Your task to perform on an android device: Open Chrome and go to settings Image 0: 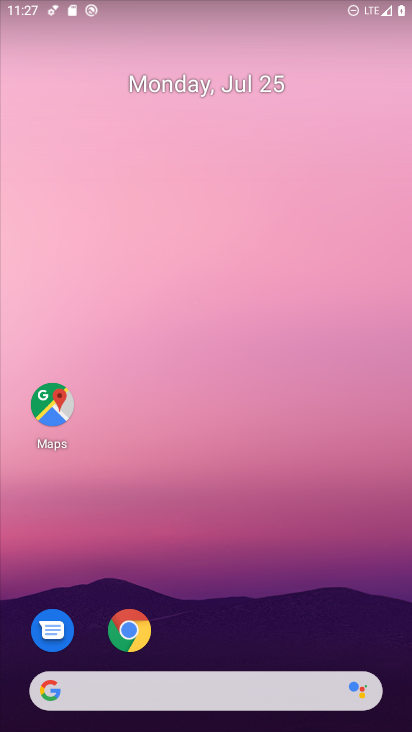
Step 0: click (132, 630)
Your task to perform on an android device: Open Chrome and go to settings Image 1: 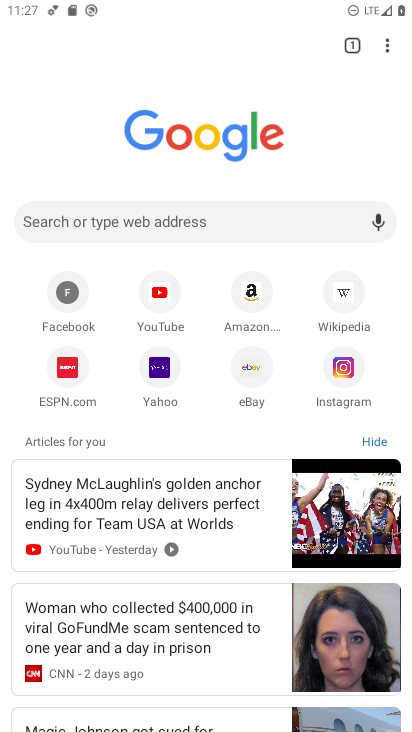
Step 1: click (390, 52)
Your task to perform on an android device: Open Chrome and go to settings Image 2: 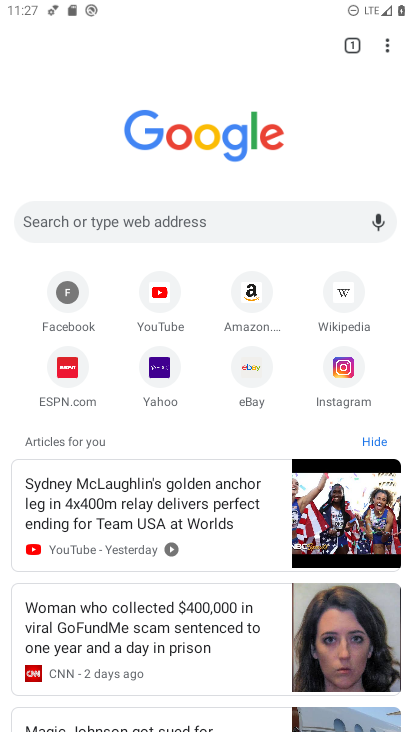
Step 2: click (390, 52)
Your task to perform on an android device: Open Chrome and go to settings Image 3: 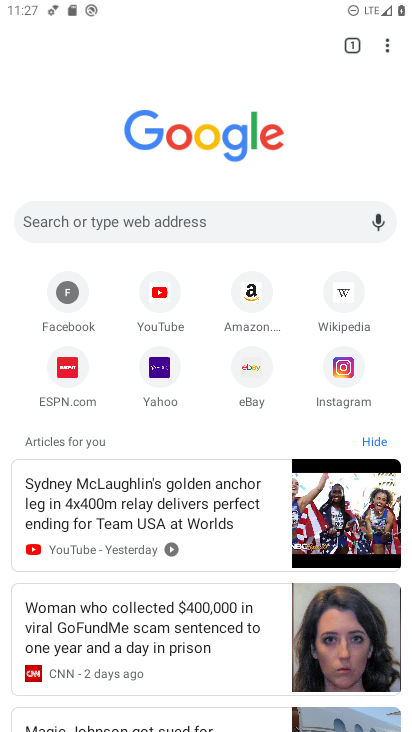
Step 3: task complete